Your task to perform on an android device: allow cookies in the chrome app Image 0: 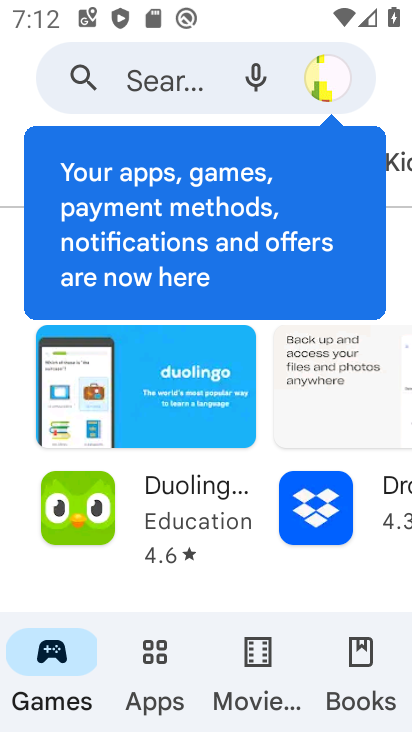
Step 0: press home button
Your task to perform on an android device: allow cookies in the chrome app Image 1: 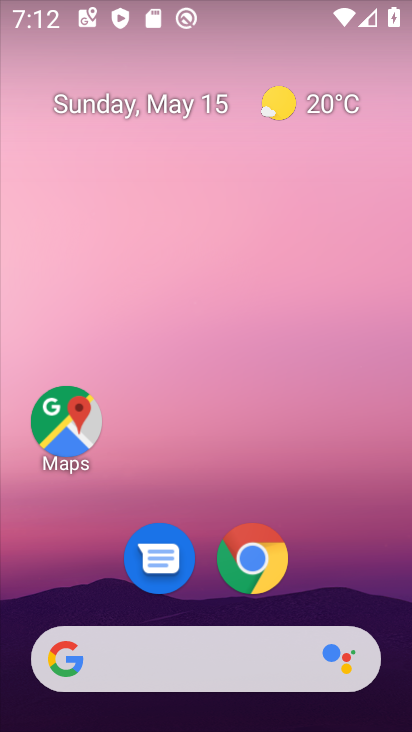
Step 1: click (247, 561)
Your task to perform on an android device: allow cookies in the chrome app Image 2: 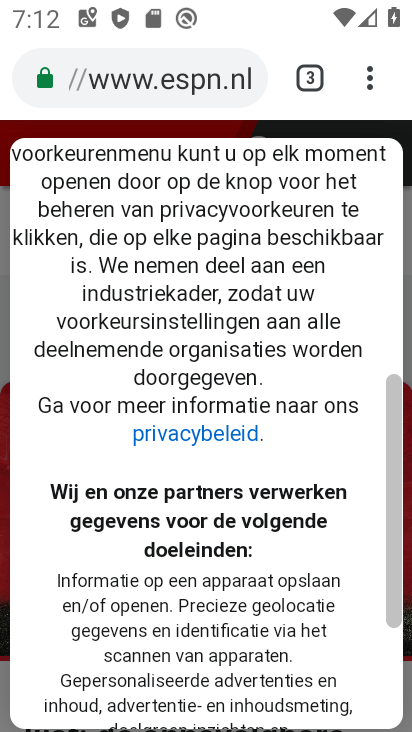
Step 2: click (367, 75)
Your task to perform on an android device: allow cookies in the chrome app Image 3: 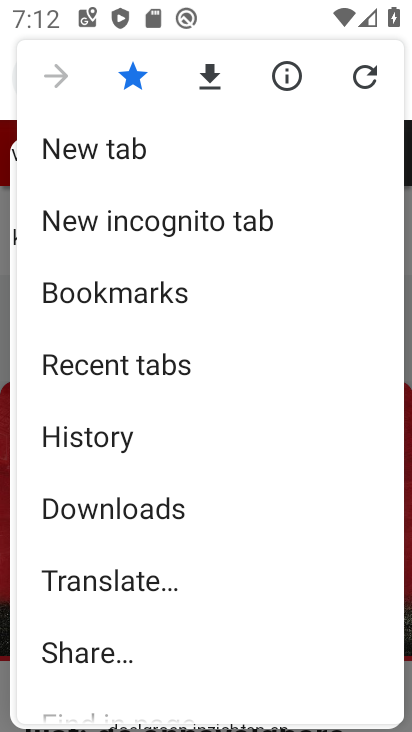
Step 3: drag from (198, 613) to (91, 331)
Your task to perform on an android device: allow cookies in the chrome app Image 4: 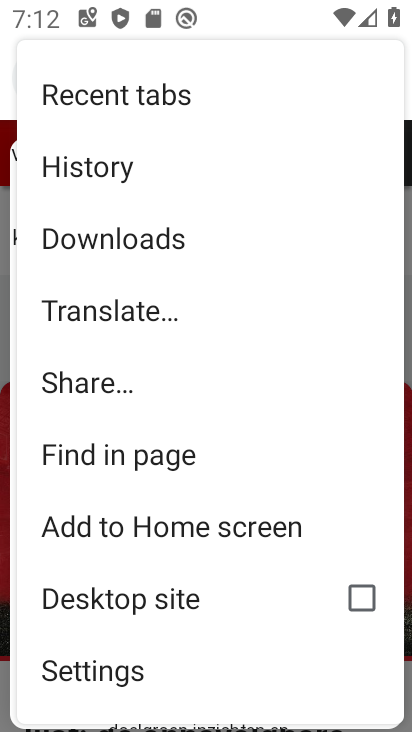
Step 4: click (111, 662)
Your task to perform on an android device: allow cookies in the chrome app Image 5: 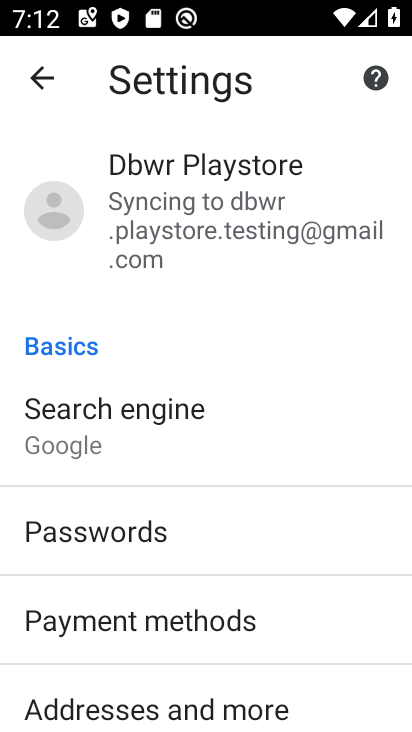
Step 5: drag from (322, 580) to (258, 262)
Your task to perform on an android device: allow cookies in the chrome app Image 6: 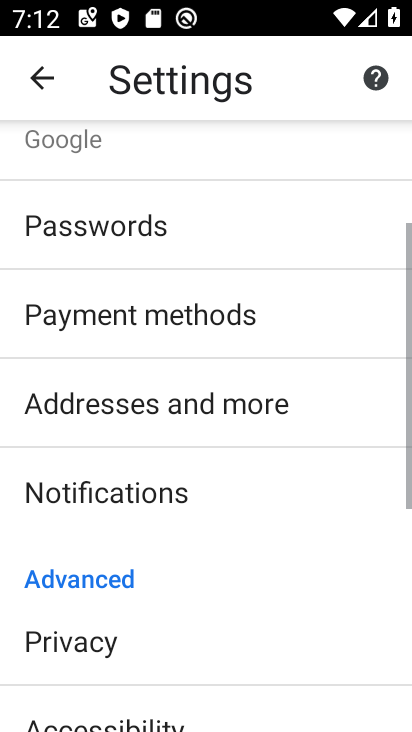
Step 6: click (258, 262)
Your task to perform on an android device: allow cookies in the chrome app Image 7: 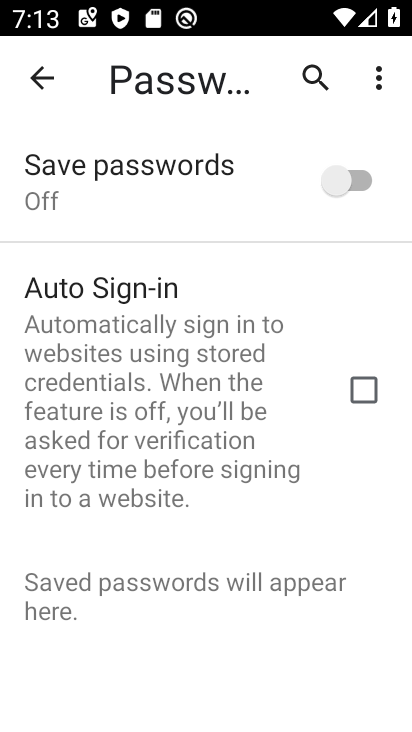
Step 7: click (35, 75)
Your task to perform on an android device: allow cookies in the chrome app Image 8: 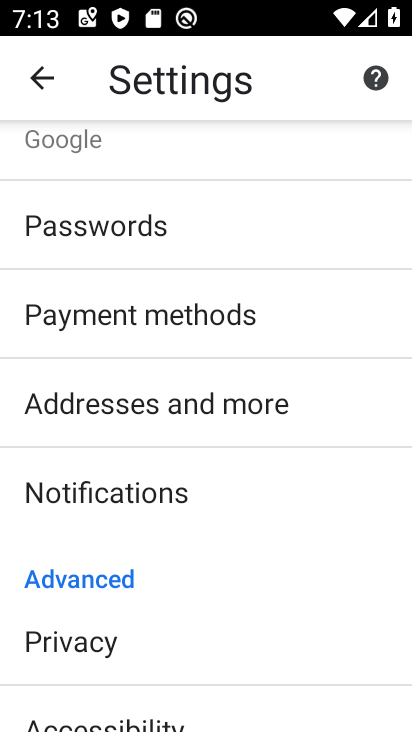
Step 8: drag from (228, 584) to (177, 174)
Your task to perform on an android device: allow cookies in the chrome app Image 9: 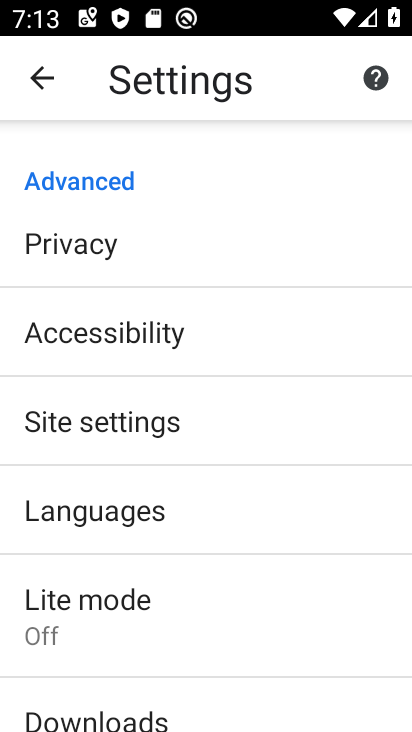
Step 9: click (127, 422)
Your task to perform on an android device: allow cookies in the chrome app Image 10: 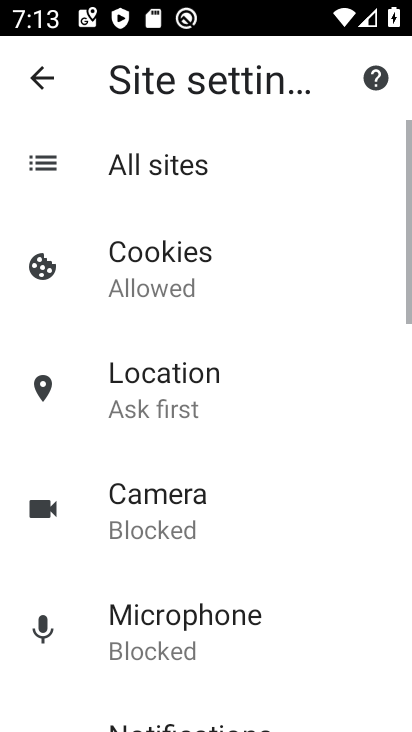
Step 10: click (180, 255)
Your task to perform on an android device: allow cookies in the chrome app Image 11: 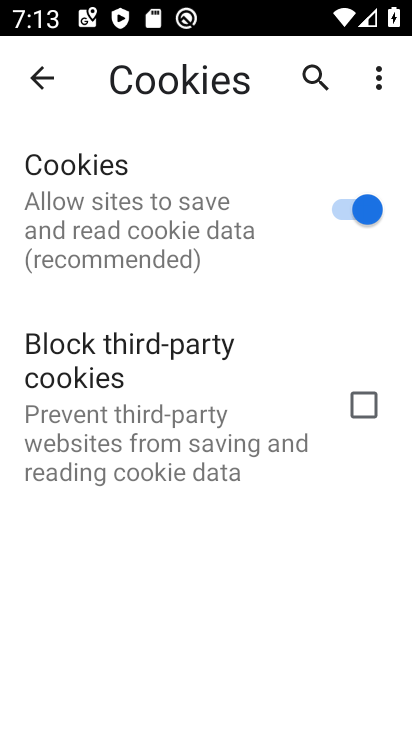
Step 11: task complete